Your task to perform on an android device: What's the weather? Image 0: 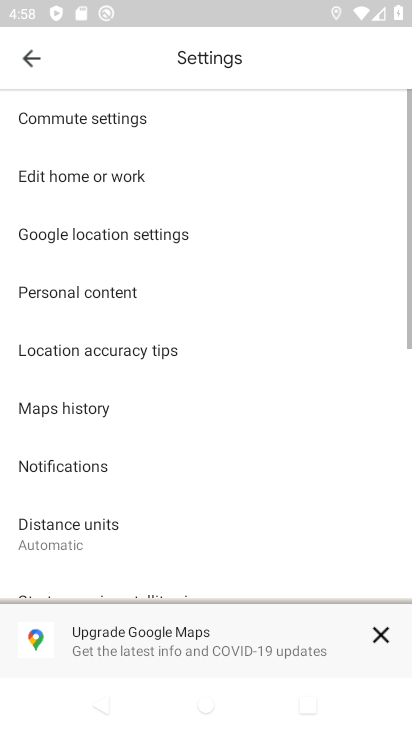
Step 0: click (279, 640)
Your task to perform on an android device: What's the weather? Image 1: 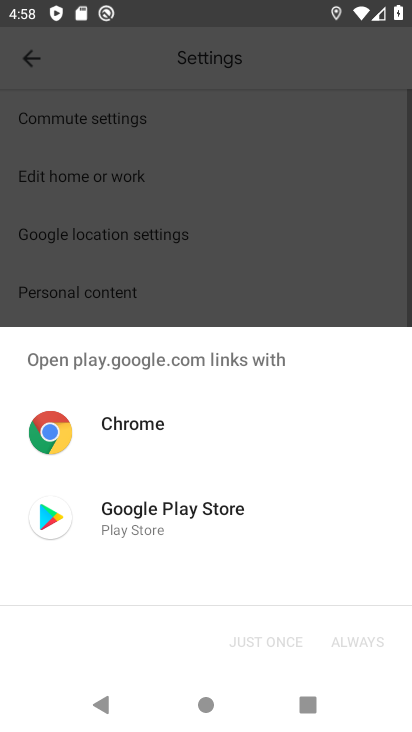
Step 1: press home button
Your task to perform on an android device: What's the weather? Image 2: 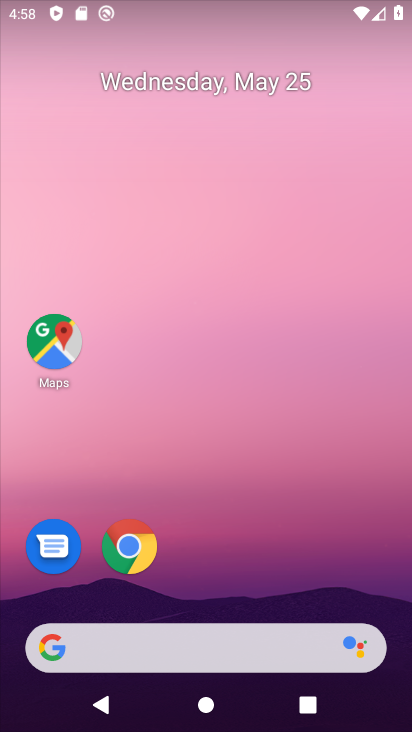
Step 2: drag from (240, 701) to (241, 659)
Your task to perform on an android device: What's the weather? Image 3: 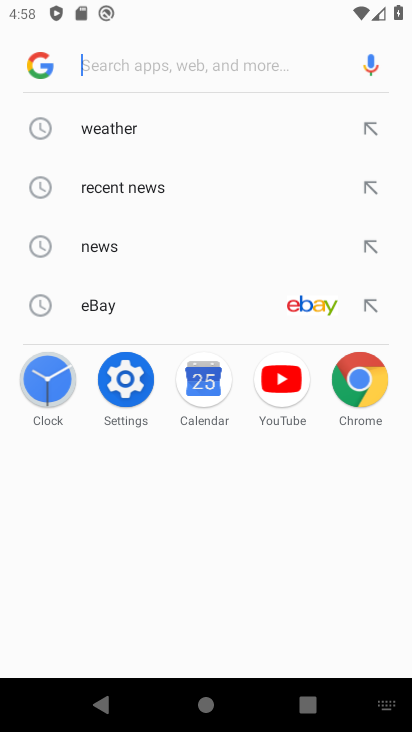
Step 3: click (153, 122)
Your task to perform on an android device: What's the weather? Image 4: 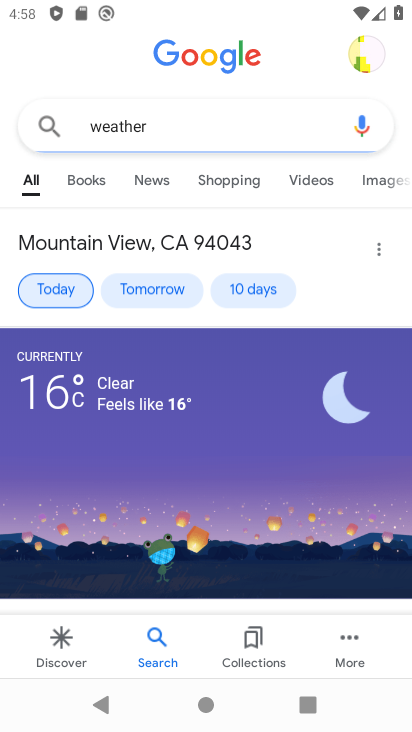
Step 4: task complete